Your task to perform on an android device: What is the news today? Image 0: 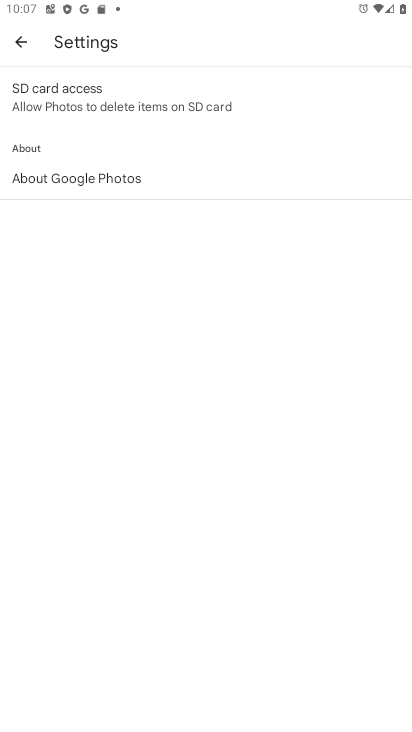
Step 0: press home button
Your task to perform on an android device: What is the news today? Image 1: 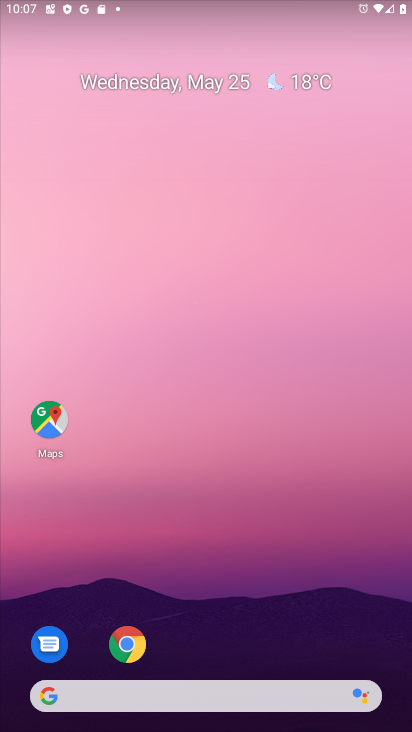
Step 1: task complete